Your task to perform on an android device: Open calendar and show me the third week of next month Image 0: 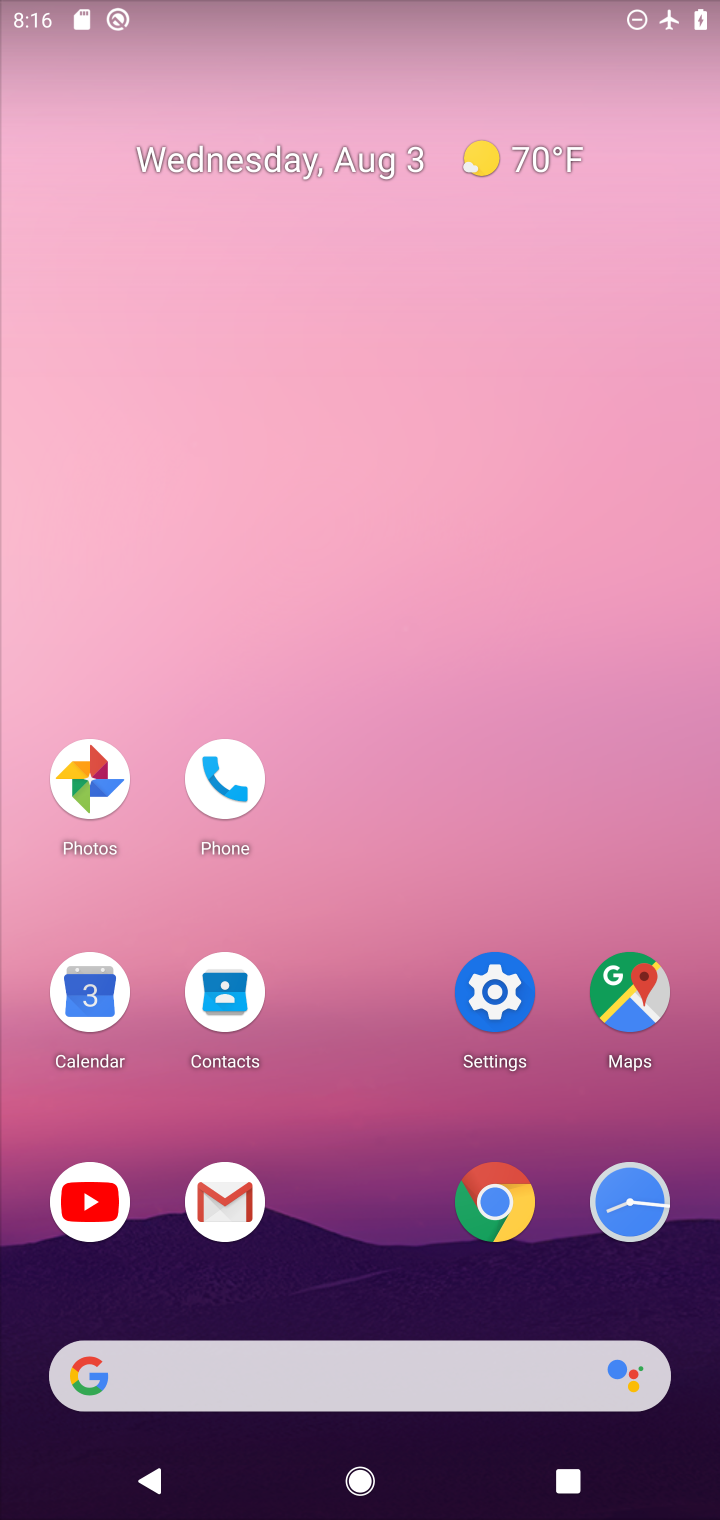
Step 0: click (89, 983)
Your task to perform on an android device: Open calendar and show me the third week of next month Image 1: 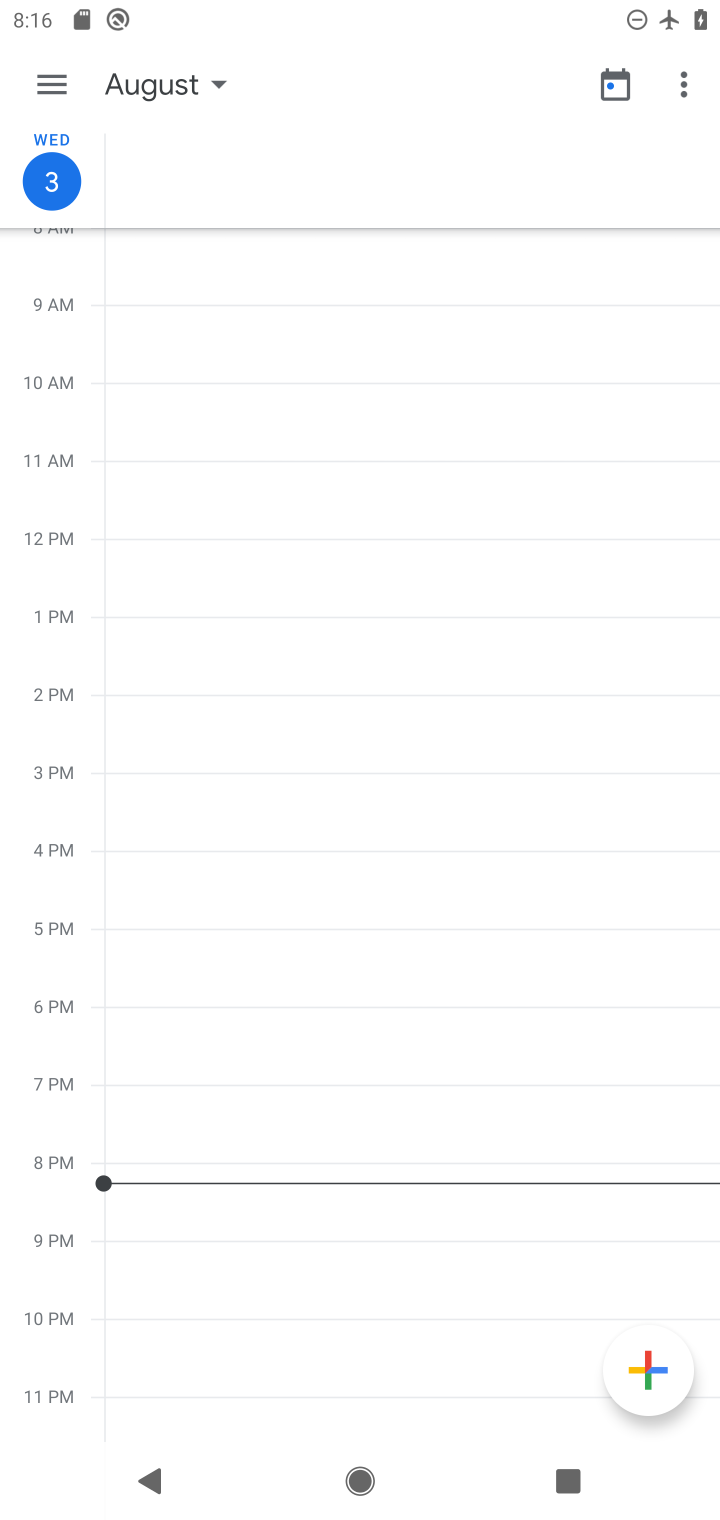
Step 1: click (220, 59)
Your task to perform on an android device: Open calendar and show me the third week of next month Image 2: 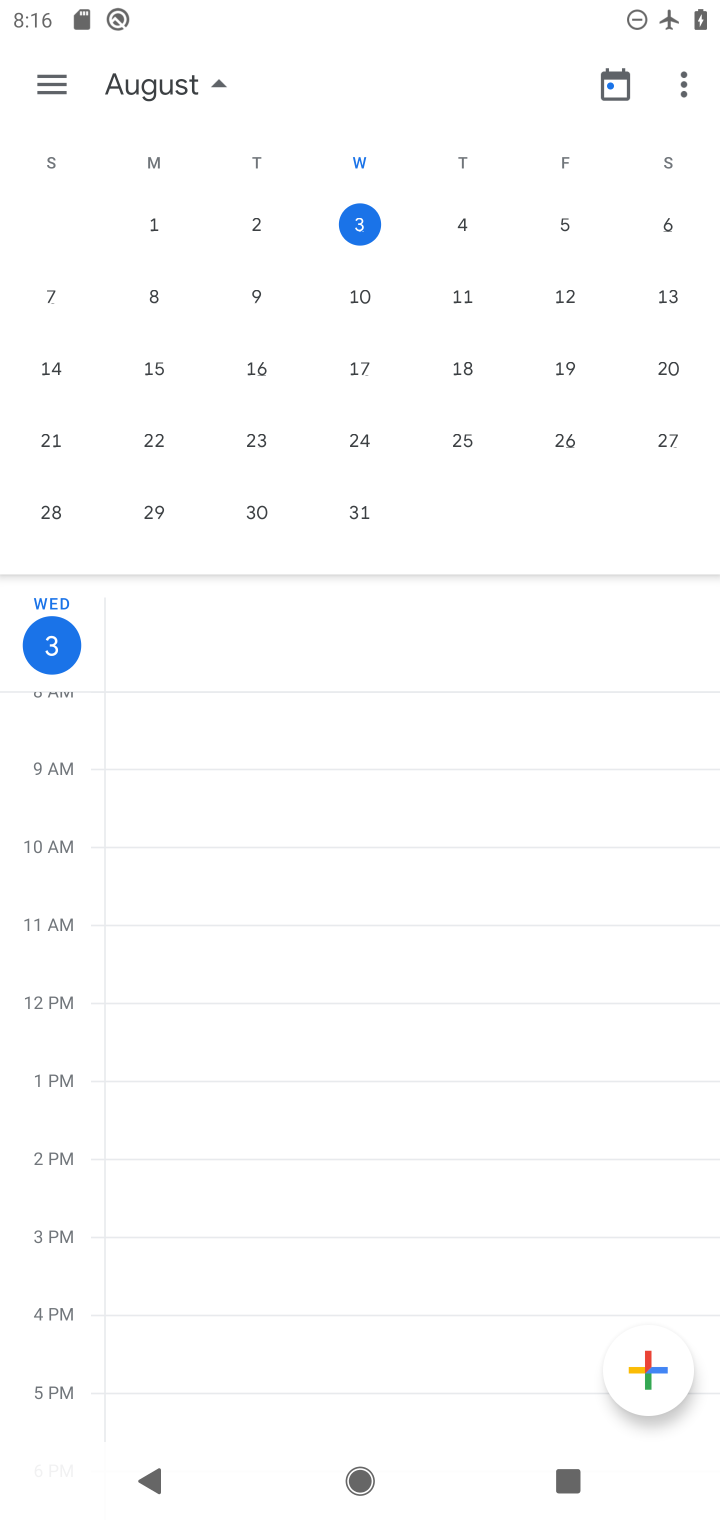
Step 2: drag from (666, 354) to (11, 230)
Your task to perform on an android device: Open calendar and show me the third week of next month Image 3: 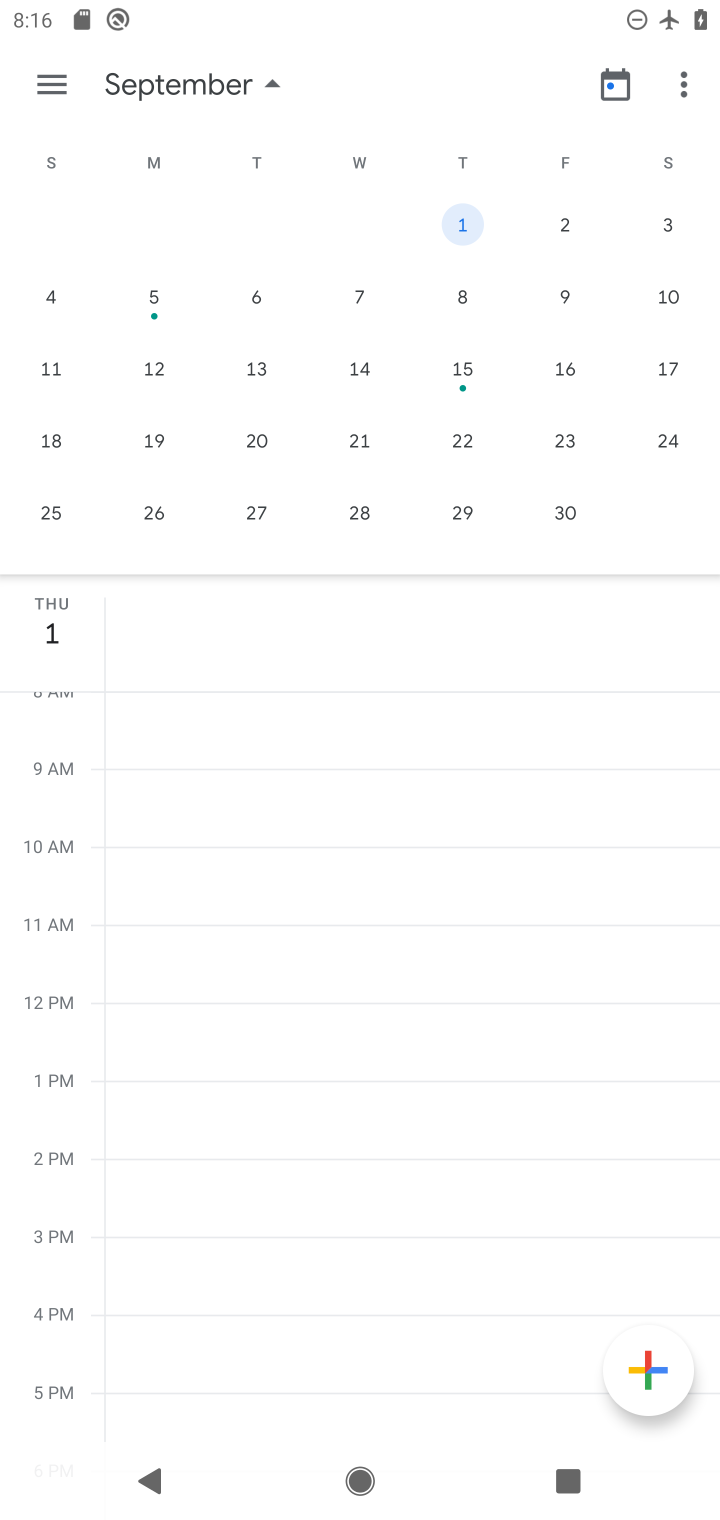
Step 3: click (455, 367)
Your task to perform on an android device: Open calendar and show me the third week of next month Image 4: 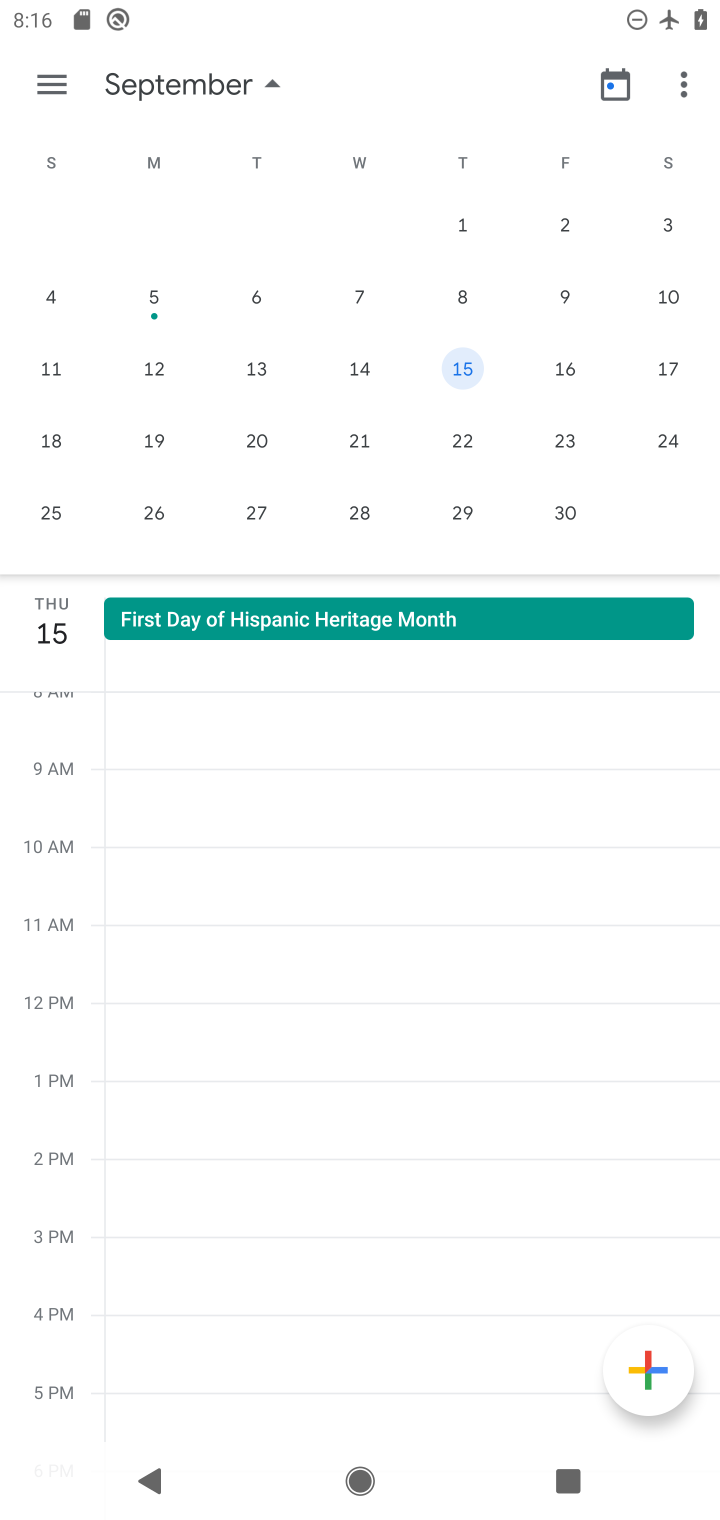
Step 4: task complete